Your task to perform on an android device: set default search engine in the chrome app Image 0: 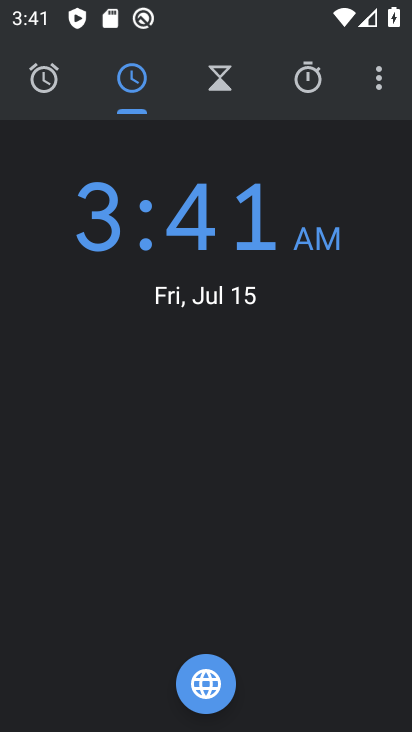
Step 0: press back button
Your task to perform on an android device: set default search engine in the chrome app Image 1: 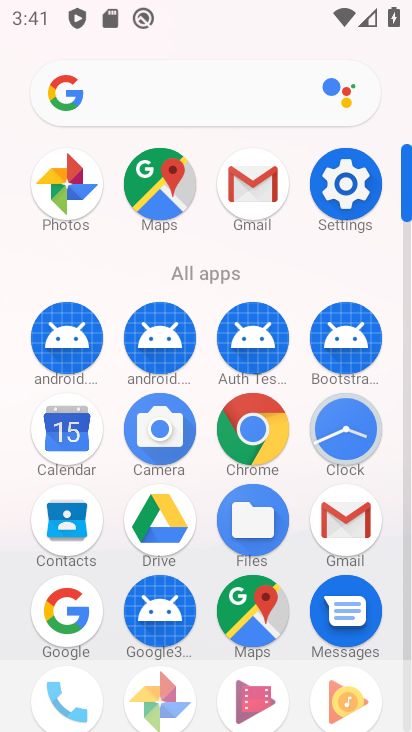
Step 1: drag from (191, 556) to (191, 63)
Your task to perform on an android device: set default search engine in the chrome app Image 2: 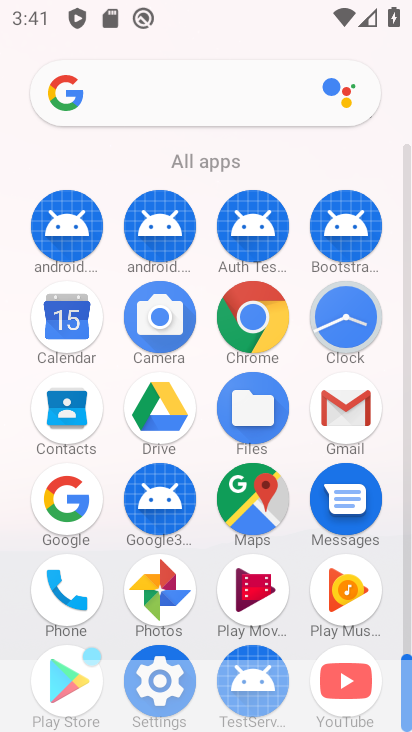
Step 2: drag from (174, 559) to (236, 58)
Your task to perform on an android device: set default search engine in the chrome app Image 3: 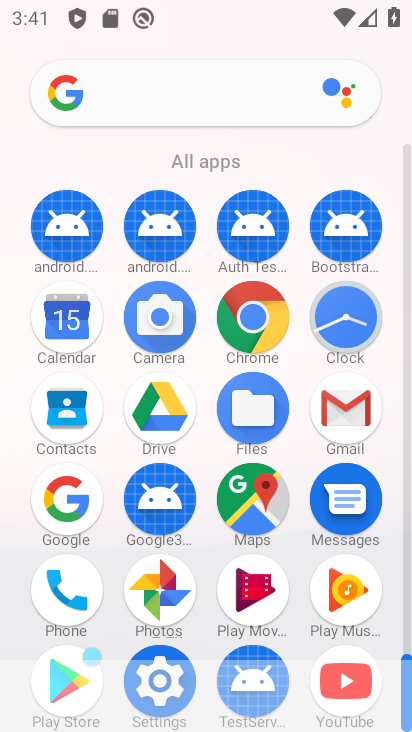
Step 3: click (252, 317)
Your task to perform on an android device: set default search engine in the chrome app Image 4: 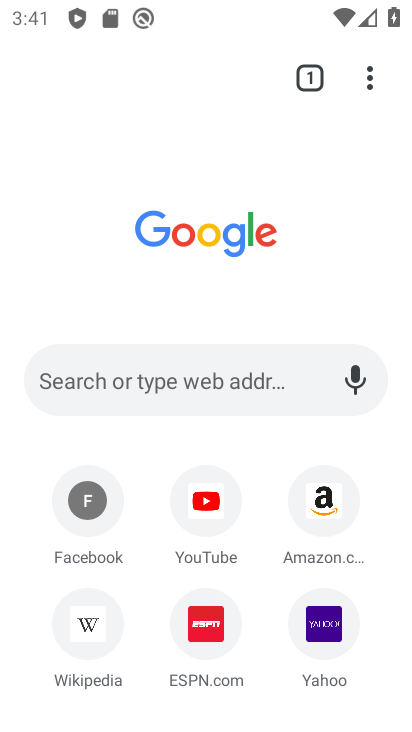
Step 4: drag from (369, 79) to (129, 638)
Your task to perform on an android device: set default search engine in the chrome app Image 5: 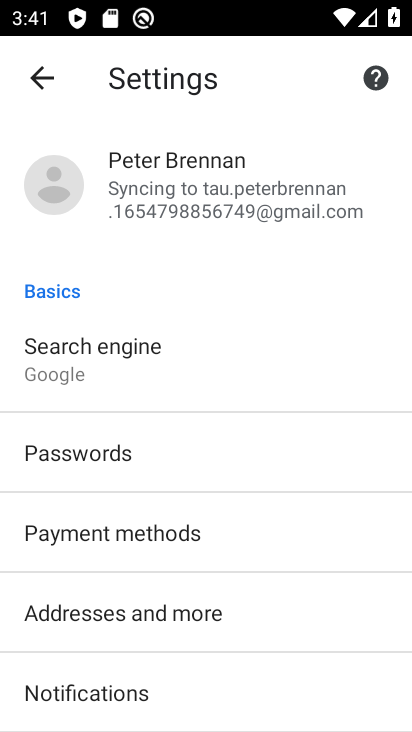
Step 5: click (72, 378)
Your task to perform on an android device: set default search engine in the chrome app Image 6: 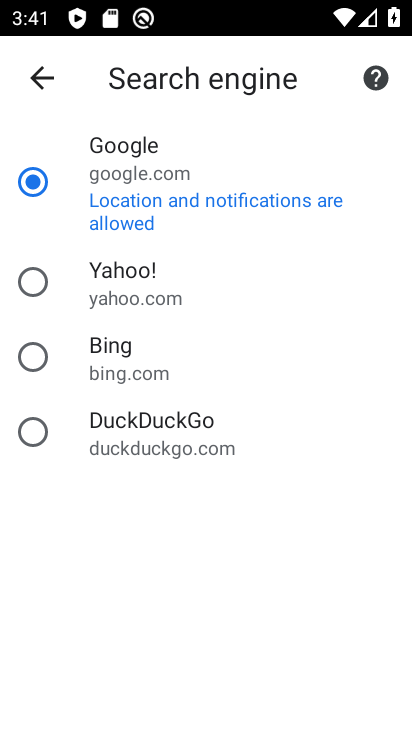
Step 6: click (81, 291)
Your task to perform on an android device: set default search engine in the chrome app Image 7: 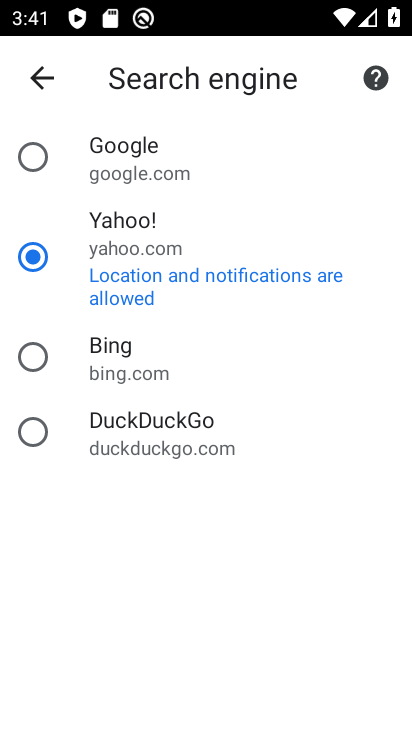
Step 7: task complete